Your task to perform on an android device: set the timer Image 0: 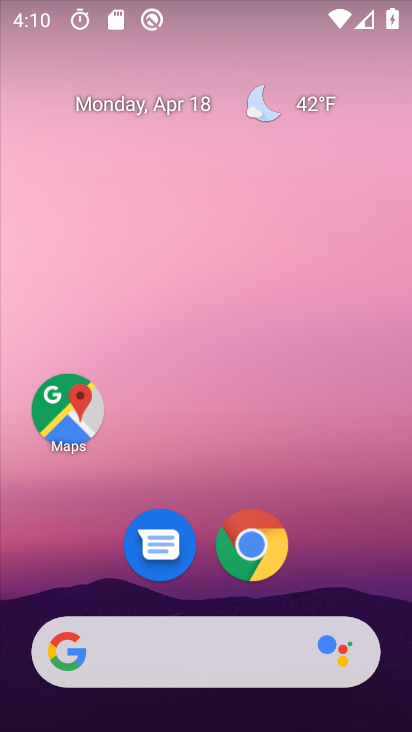
Step 0: drag from (330, 550) to (321, 112)
Your task to perform on an android device: set the timer Image 1: 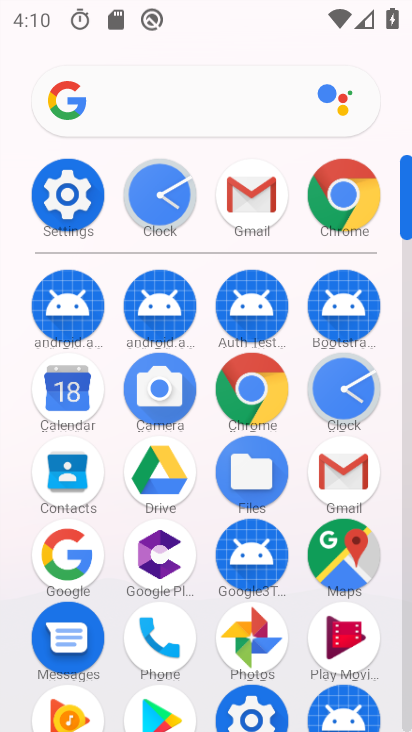
Step 1: click (342, 390)
Your task to perform on an android device: set the timer Image 2: 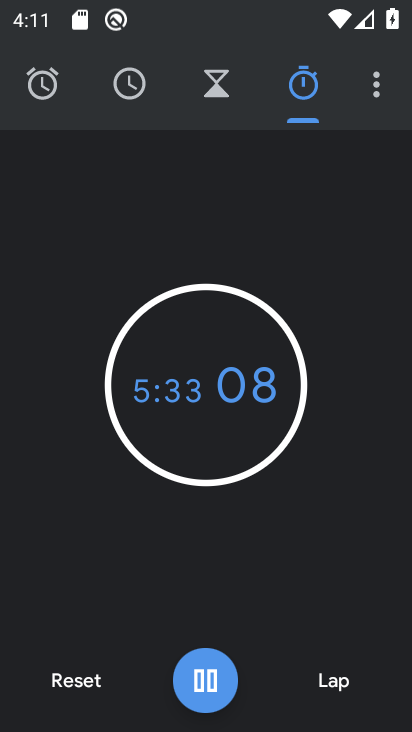
Step 2: task complete